Your task to perform on an android device: Open CNN.com Image 0: 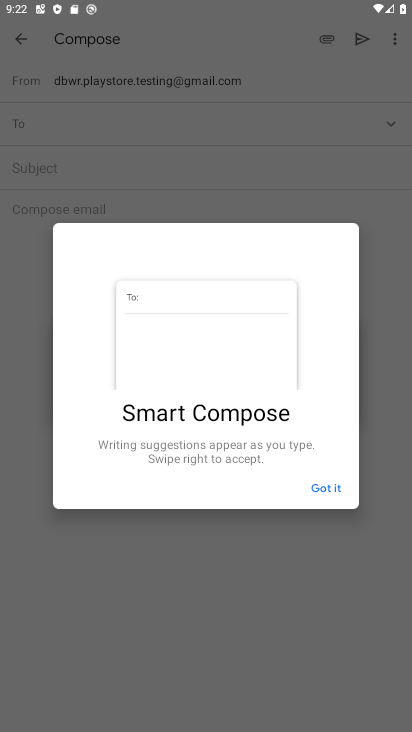
Step 0: press home button
Your task to perform on an android device: Open CNN.com Image 1: 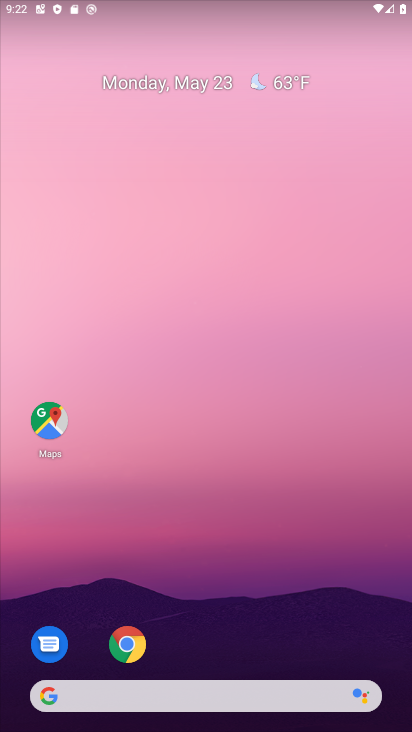
Step 1: click (120, 638)
Your task to perform on an android device: Open CNN.com Image 2: 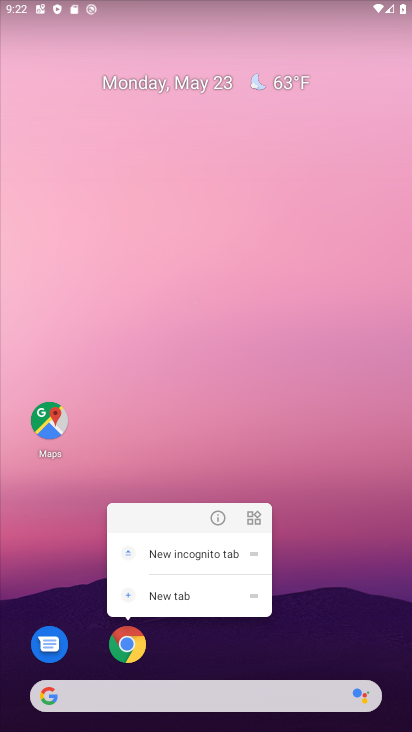
Step 2: click (120, 638)
Your task to perform on an android device: Open CNN.com Image 3: 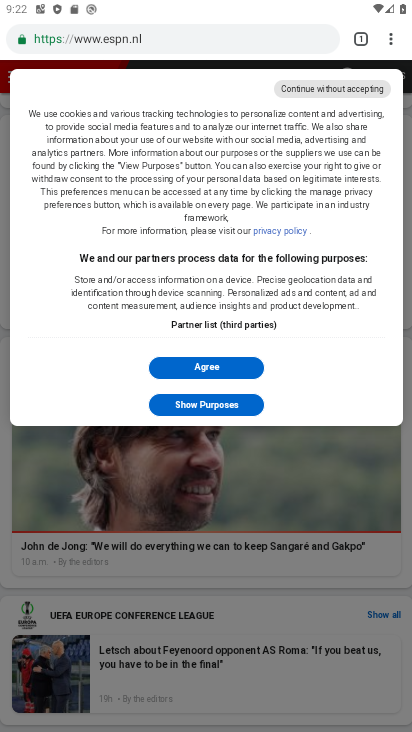
Step 3: click (208, 363)
Your task to perform on an android device: Open CNN.com Image 4: 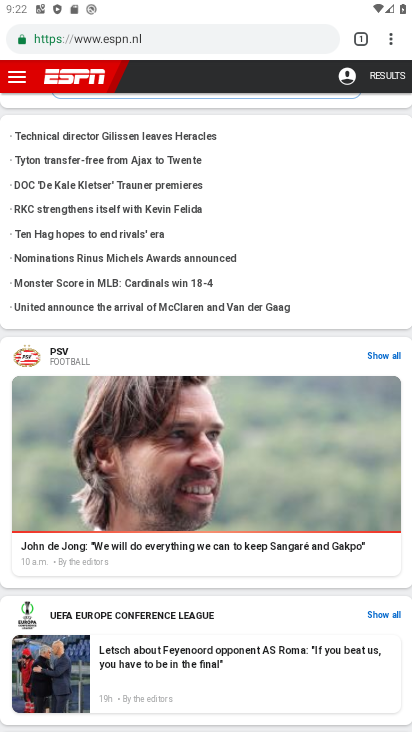
Step 4: click (366, 33)
Your task to perform on an android device: Open CNN.com Image 5: 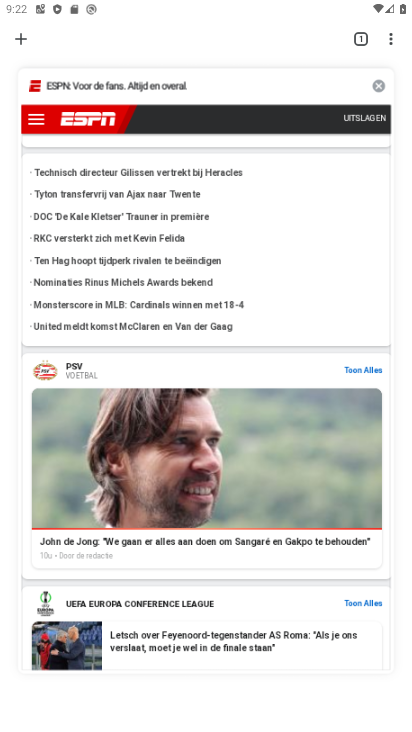
Step 5: click (375, 80)
Your task to perform on an android device: Open CNN.com Image 6: 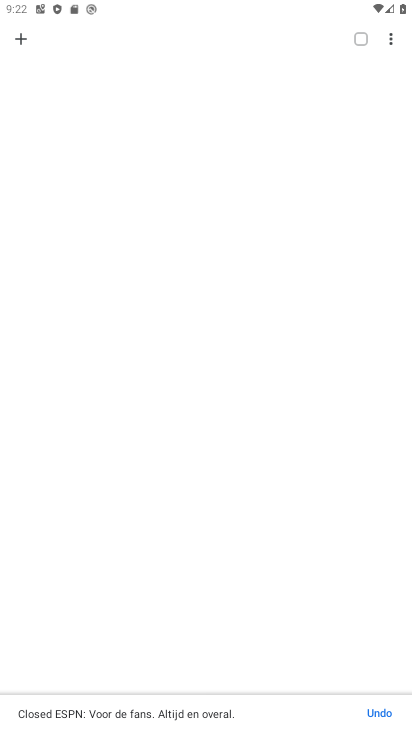
Step 6: click (33, 40)
Your task to perform on an android device: Open CNN.com Image 7: 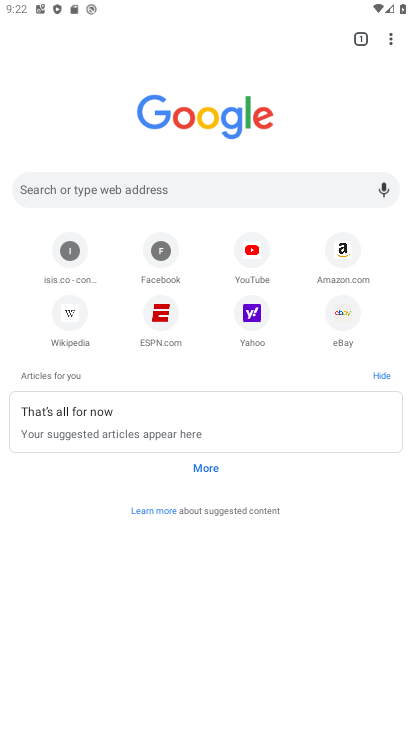
Step 7: click (99, 181)
Your task to perform on an android device: Open CNN.com Image 8: 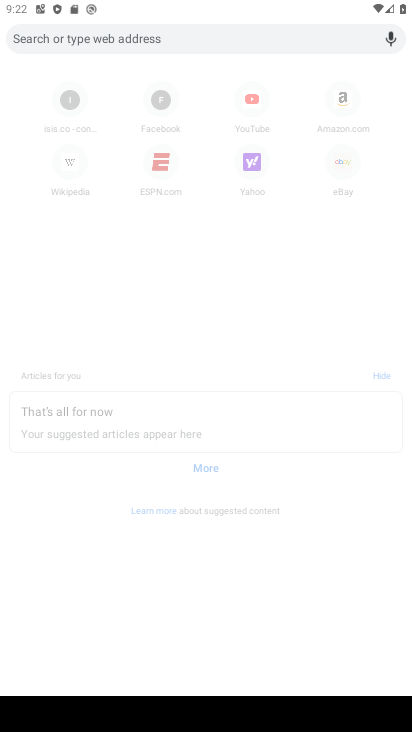
Step 8: type "cnn.com"
Your task to perform on an android device: Open CNN.com Image 9: 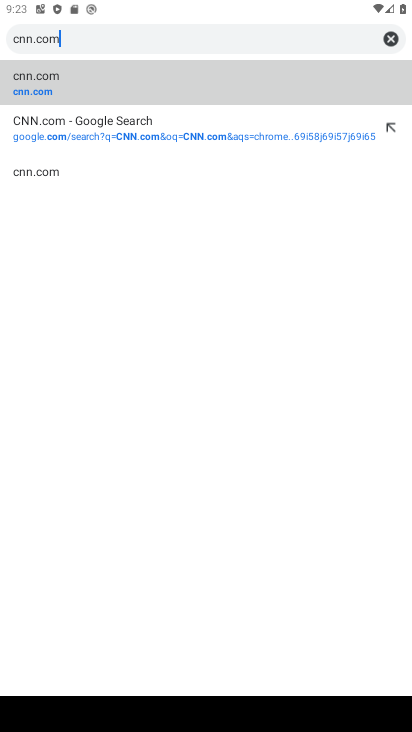
Step 9: click (162, 128)
Your task to perform on an android device: Open CNN.com Image 10: 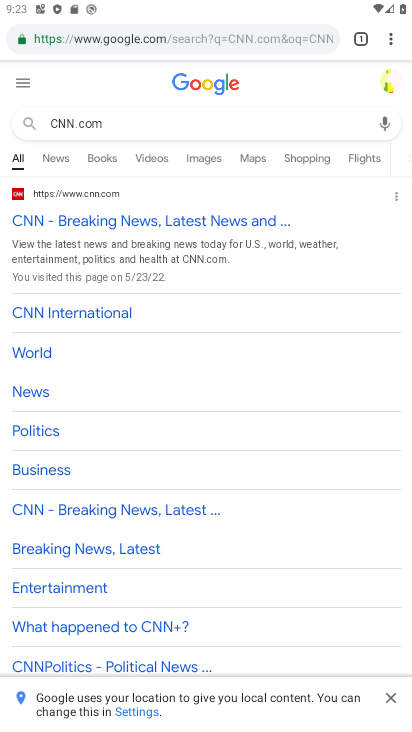
Step 10: click (226, 219)
Your task to perform on an android device: Open CNN.com Image 11: 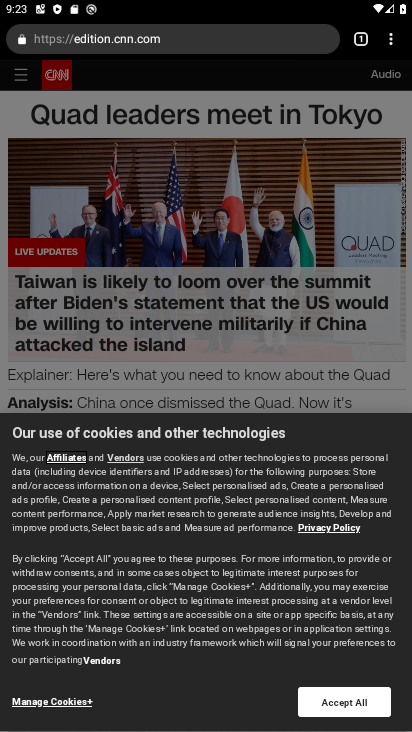
Step 11: click (345, 701)
Your task to perform on an android device: Open CNN.com Image 12: 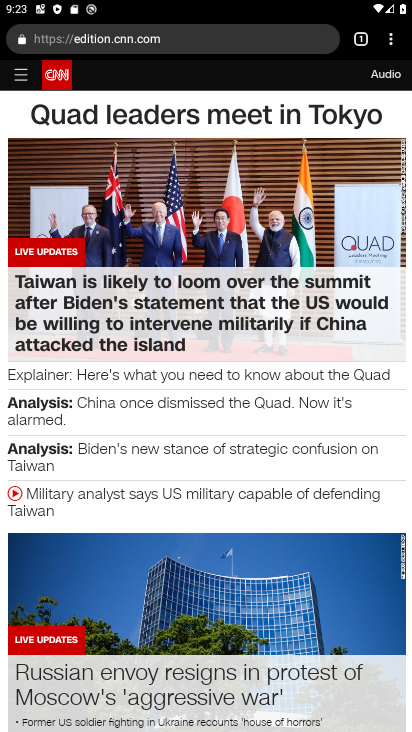
Step 12: task complete